Your task to perform on an android device: Search for pizza restaurants on Maps Image 0: 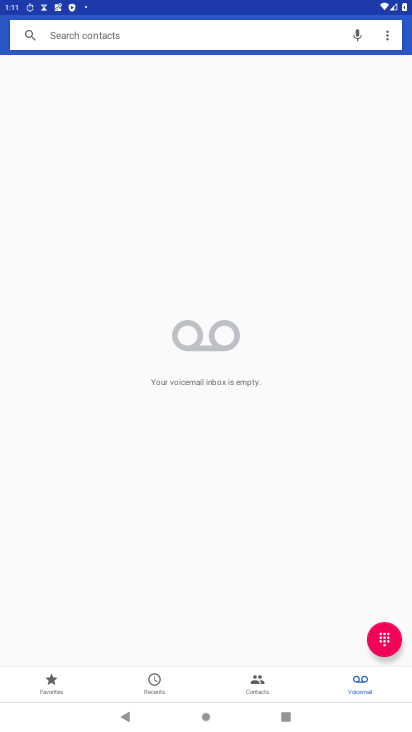
Step 0: press home button
Your task to perform on an android device: Search for pizza restaurants on Maps Image 1: 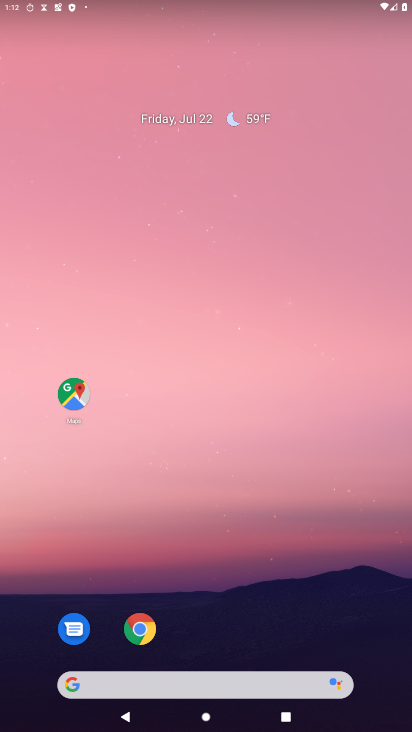
Step 1: drag from (246, 681) to (266, 4)
Your task to perform on an android device: Search for pizza restaurants on Maps Image 2: 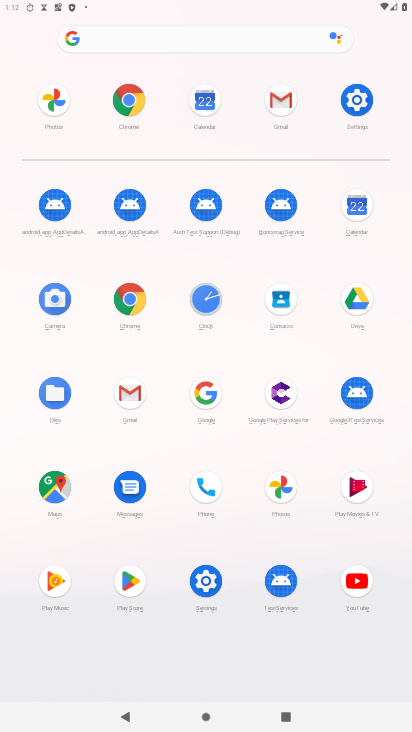
Step 2: click (60, 491)
Your task to perform on an android device: Search for pizza restaurants on Maps Image 3: 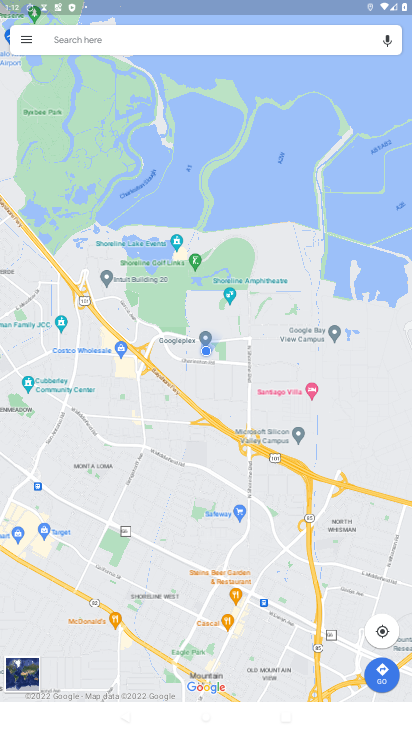
Step 3: click (241, 46)
Your task to perform on an android device: Search for pizza restaurants on Maps Image 4: 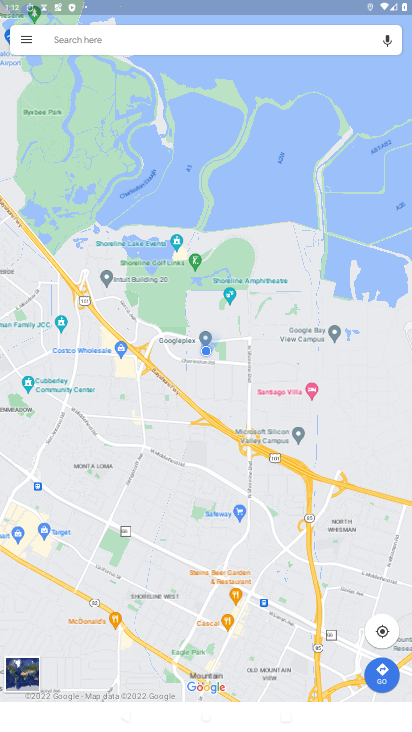
Step 4: click (241, 46)
Your task to perform on an android device: Search for pizza restaurants on Maps Image 5: 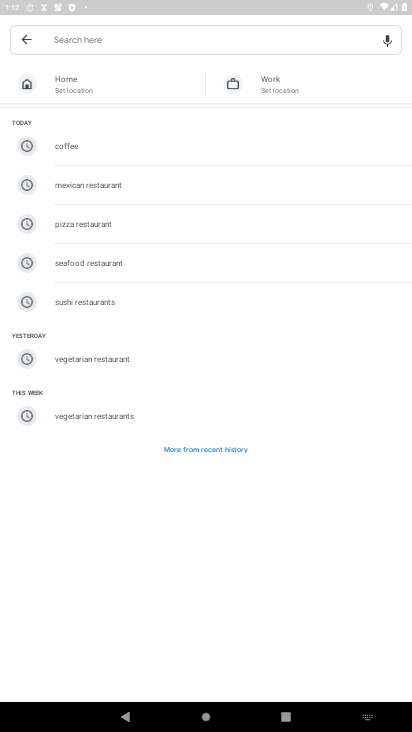
Step 5: click (93, 229)
Your task to perform on an android device: Search for pizza restaurants on Maps Image 6: 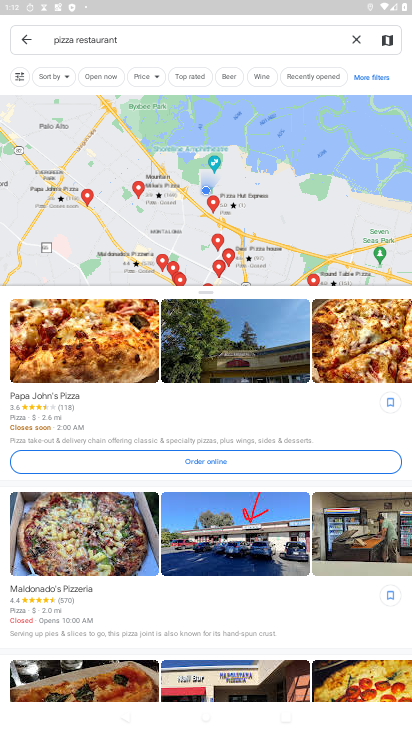
Step 6: task complete